Your task to perform on an android device: Go to Google maps Image 0: 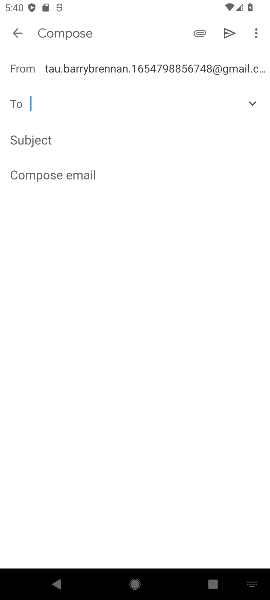
Step 0: press home button
Your task to perform on an android device: Go to Google maps Image 1: 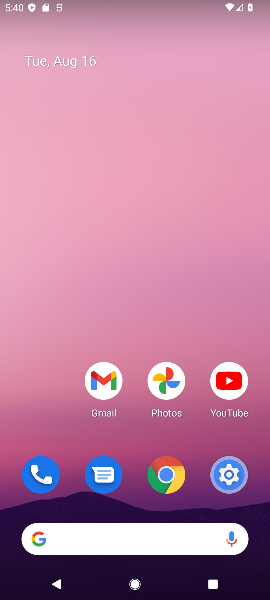
Step 1: drag from (195, 463) to (268, 174)
Your task to perform on an android device: Go to Google maps Image 2: 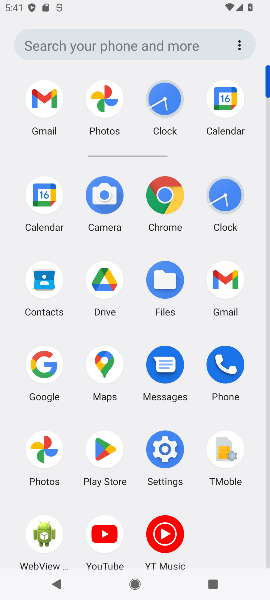
Step 2: click (108, 370)
Your task to perform on an android device: Go to Google maps Image 3: 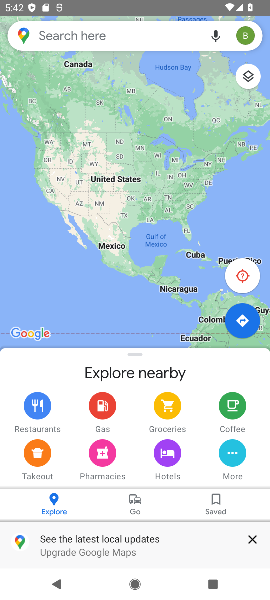
Step 3: task complete